Your task to perform on an android device: toggle notification dots Image 0: 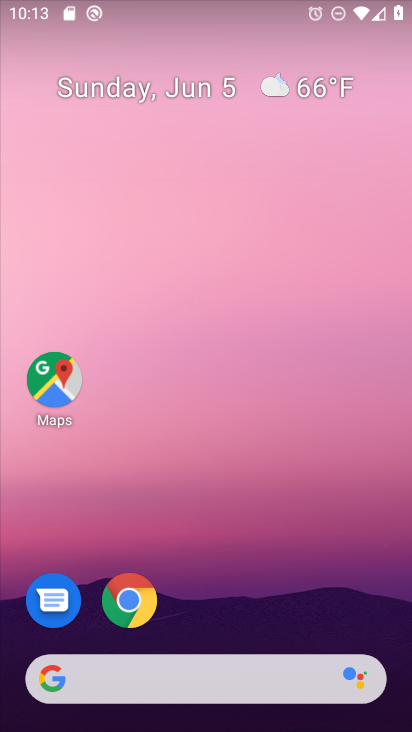
Step 0: drag from (343, 396) to (264, 40)
Your task to perform on an android device: toggle notification dots Image 1: 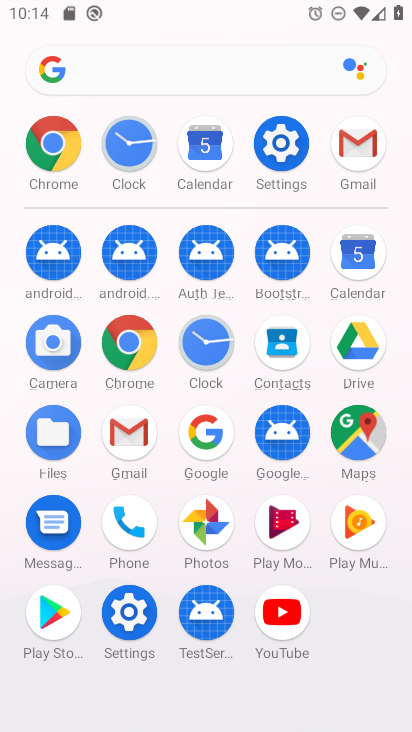
Step 1: click (130, 606)
Your task to perform on an android device: toggle notification dots Image 2: 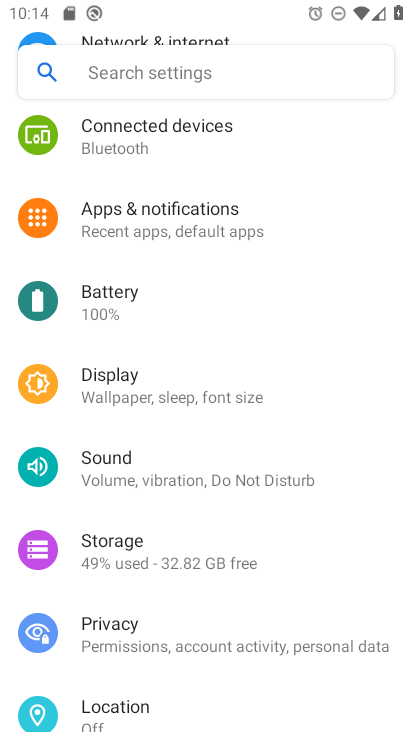
Step 2: drag from (166, 134) to (185, 464)
Your task to perform on an android device: toggle notification dots Image 3: 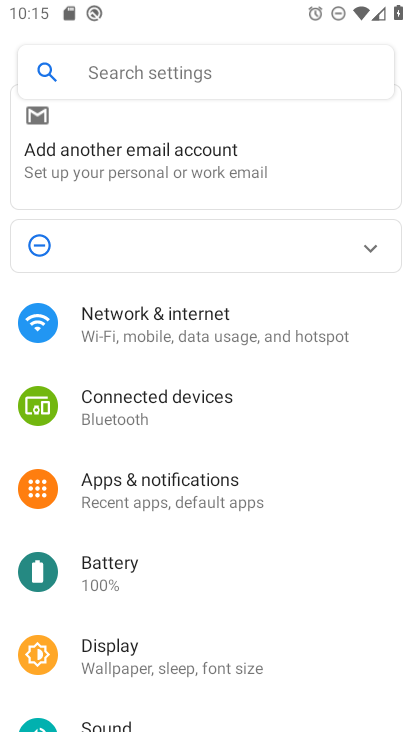
Step 3: click (162, 505)
Your task to perform on an android device: toggle notification dots Image 4: 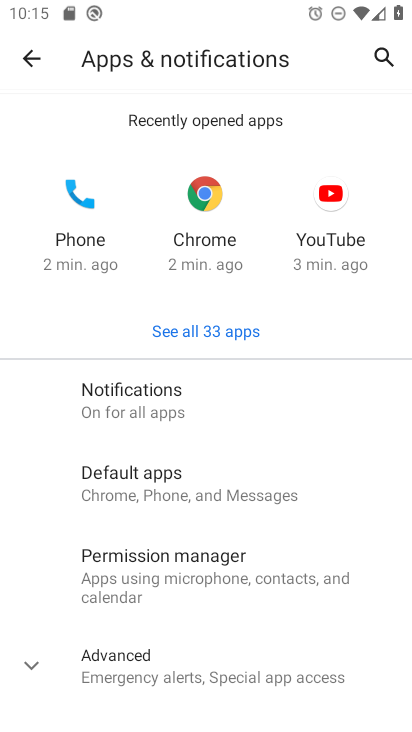
Step 4: click (187, 410)
Your task to perform on an android device: toggle notification dots Image 5: 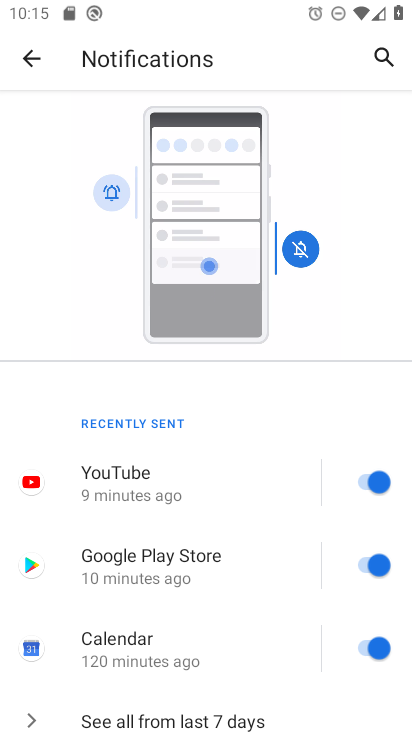
Step 5: drag from (179, 663) to (154, 74)
Your task to perform on an android device: toggle notification dots Image 6: 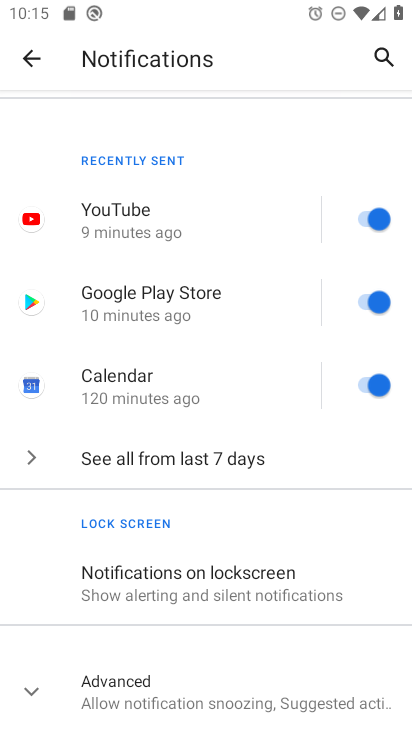
Step 6: click (194, 688)
Your task to perform on an android device: toggle notification dots Image 7: 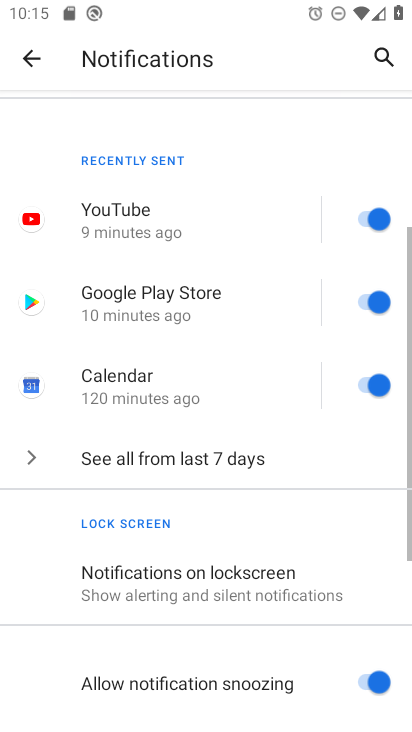
Step 7: drag from (194, 688) to (160, 73)
Your task to perform on an android device: toggle notification dots Image 8: 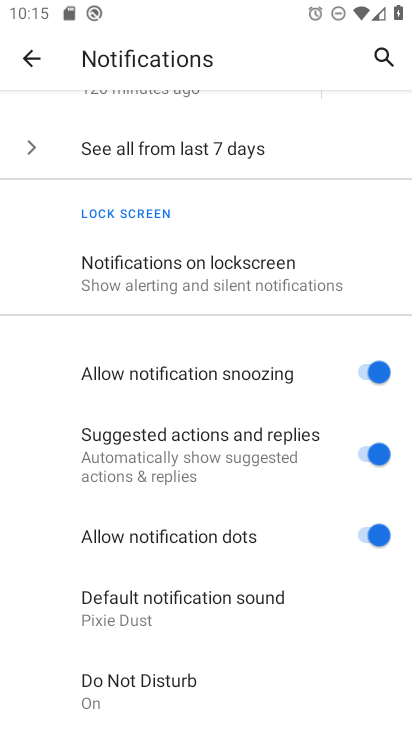
Step 8: click (305, 535)
Your task to perform on an android device: toggle notification dots Image 9: 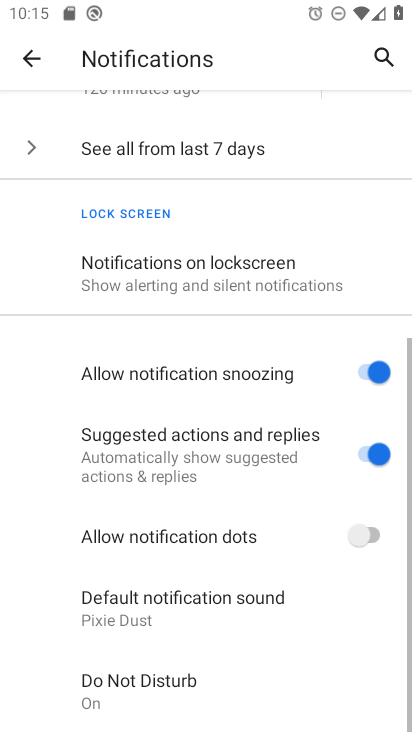
Step 9: task complete